Your task to perform on an android device: open app "Calculator" (install if not already installed) Image 0: 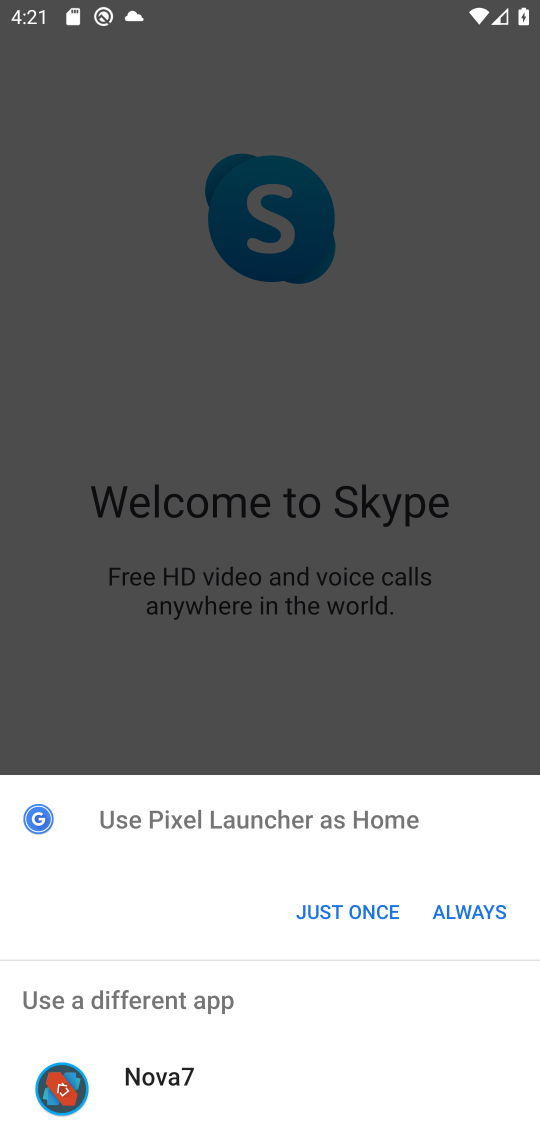
Step 0: press home button
Your task to perform on an android device: open app "Calculator" (install if not already installed) Image 1: 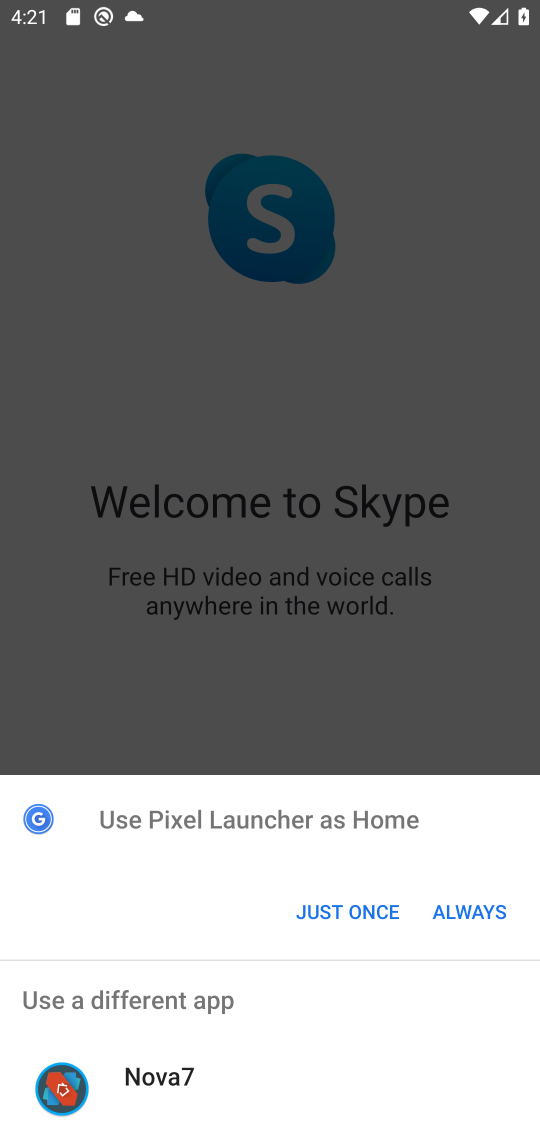
Step 1: click (340, 915)
Your task to perform on an android device: open app "Calculator" (install if not already installed) Image 2: 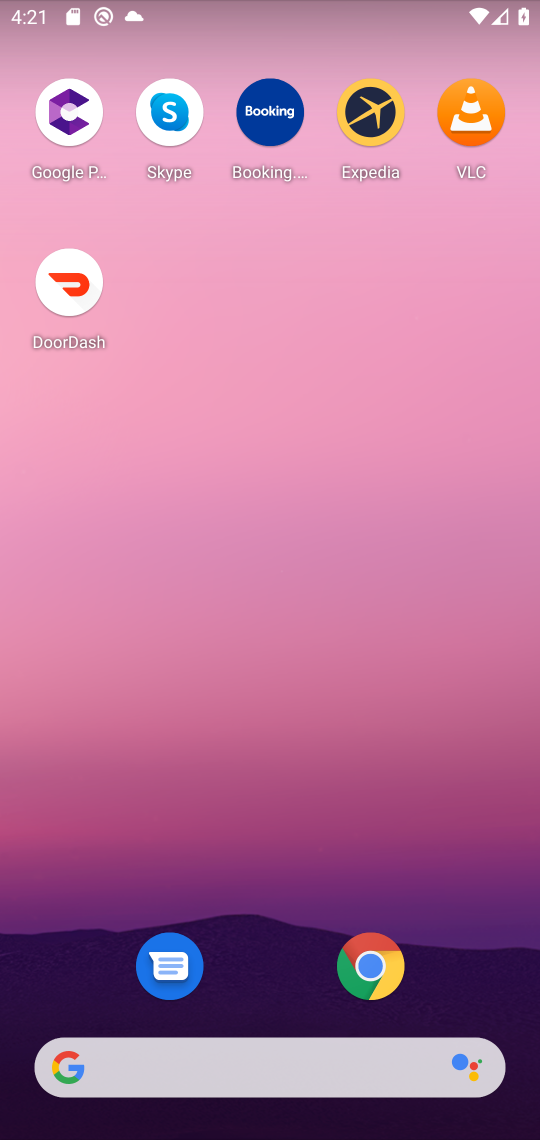
Step 2: drag from (231, 974) to (335, 1)
Your task to perform on an android device: open app "Calculator" (install if not already installed) Image 3: 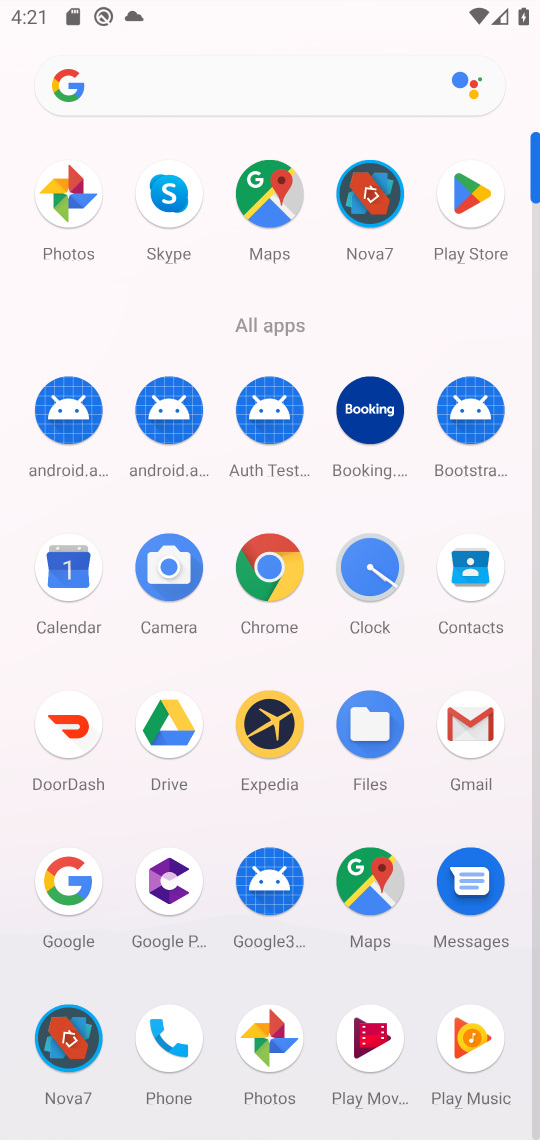
Step 3: click (456, 193)
Your task to perform on an android device: open app "Calculator" (install if not already installed) Image 4: 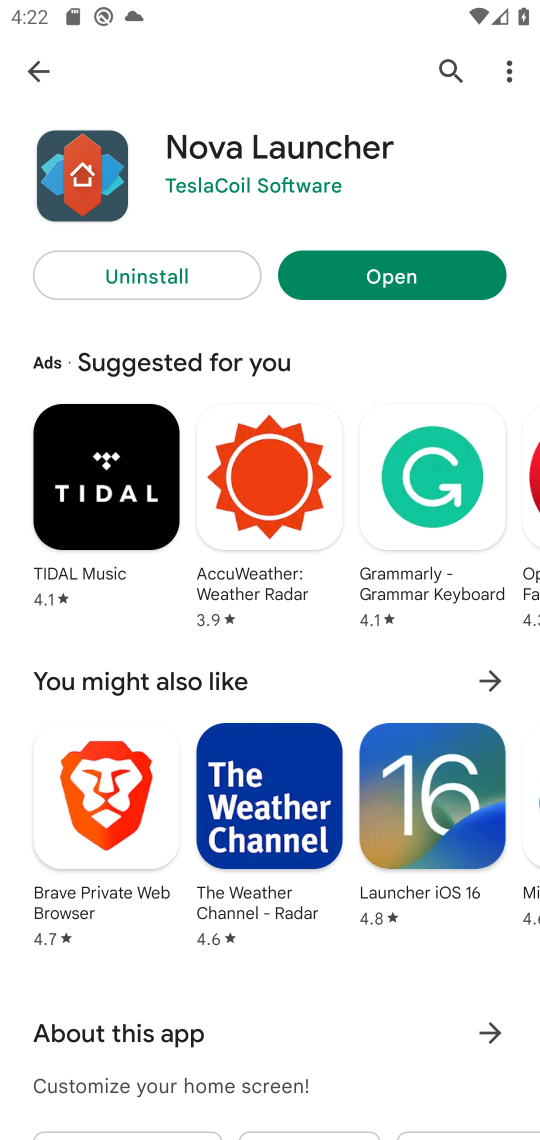
Step 4: click (447, 73)
Your task to perform on an android device: open app "Calculator" (install if not already installed) Image 5: 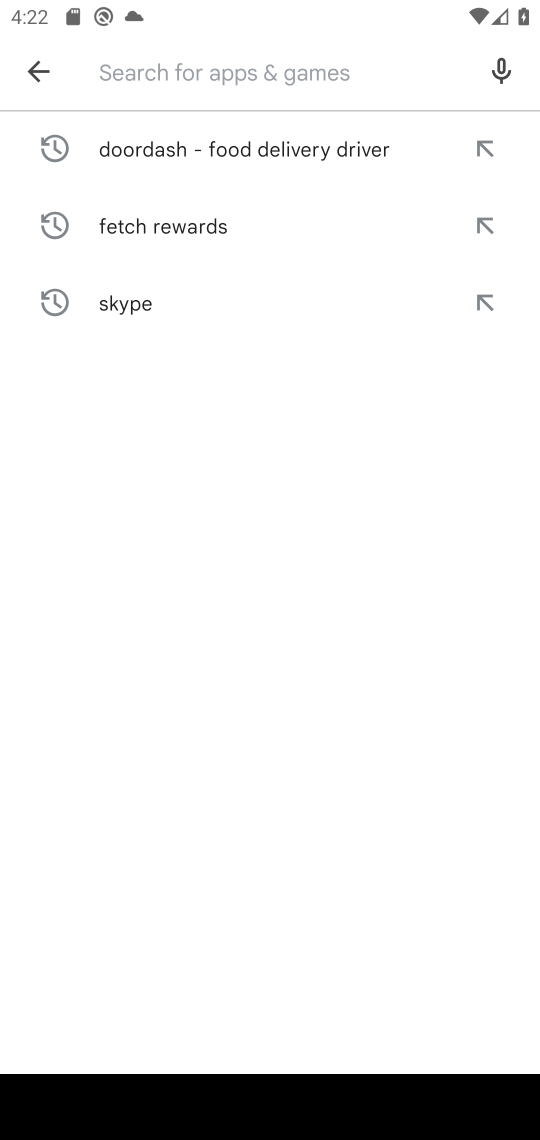
Step 5: type "Calculator"
Your task to perform on an android device: open app "Calculator" (install if not already installed) Image 6: 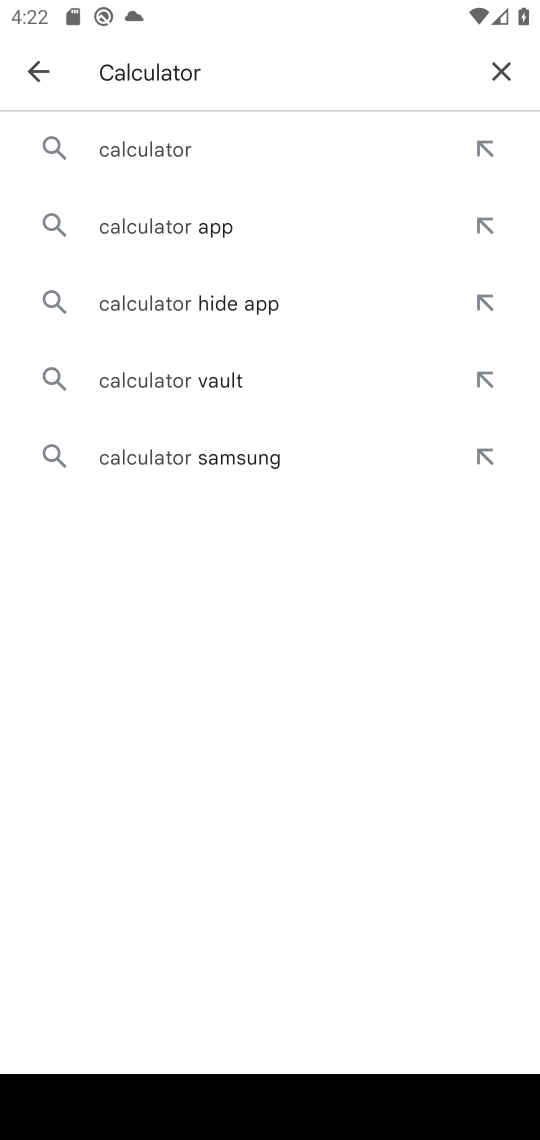
Step 6: click (181, 156)
Your task to perform on an android device: open app "Calculator" (install if not already installed) Image 7: 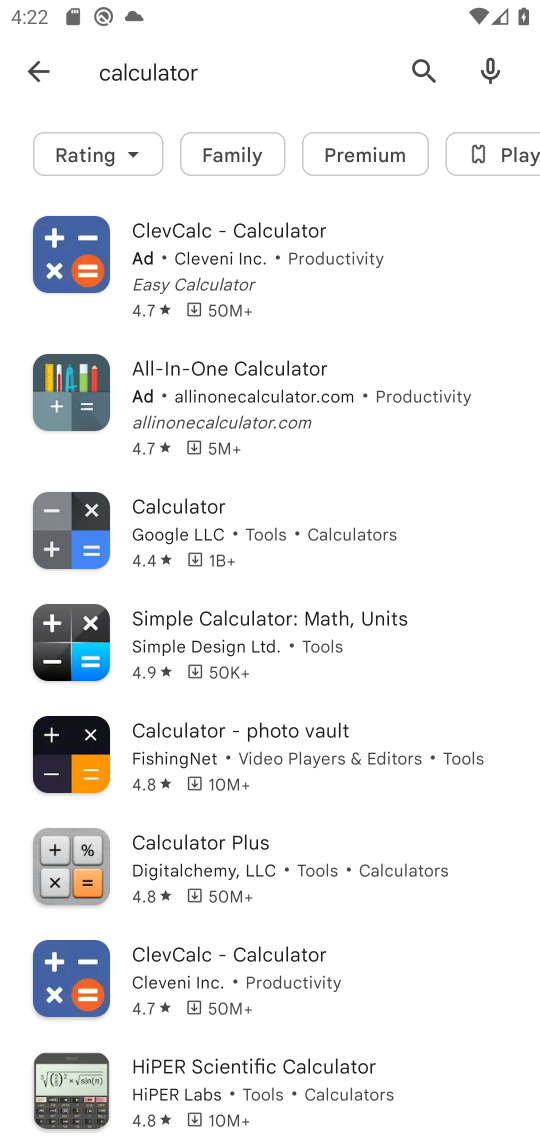
Step 7: click (208, 513)
Your task to perform on an android device: open app "Calculator" (install if not already installed) Image 8: 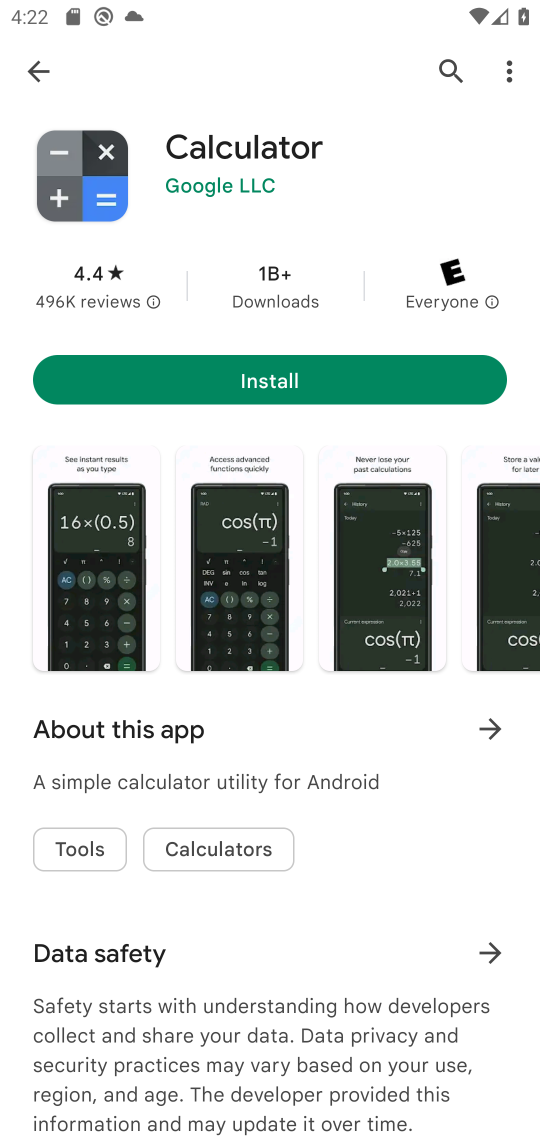
Step 8: click (261, 369)
Your task to perform on an android device: open app "Calculator" (install if not already installed) Image 9: 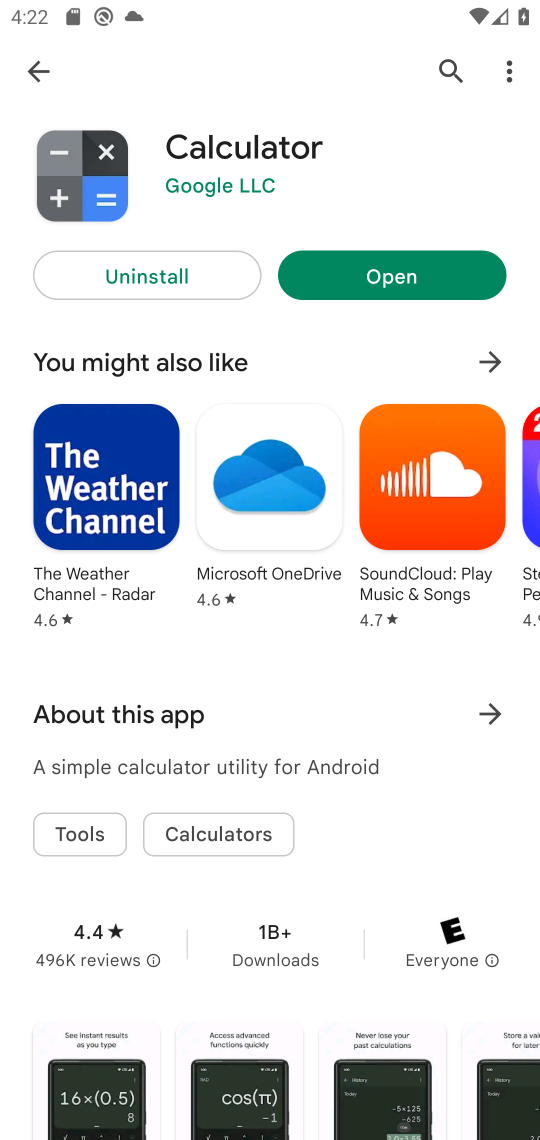
Step 9: click (379, 279)
Your task to perform on an android device: open app "Calculator" (install if not already installed) Image 10: 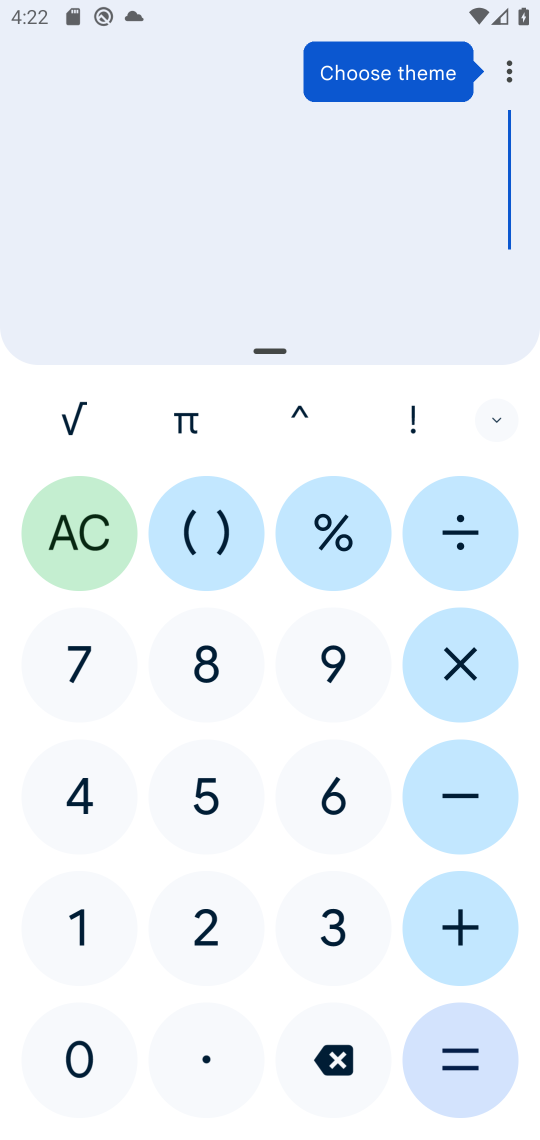
Step 10: task complete